Your task to perform on an android device: Open Google Image 0: 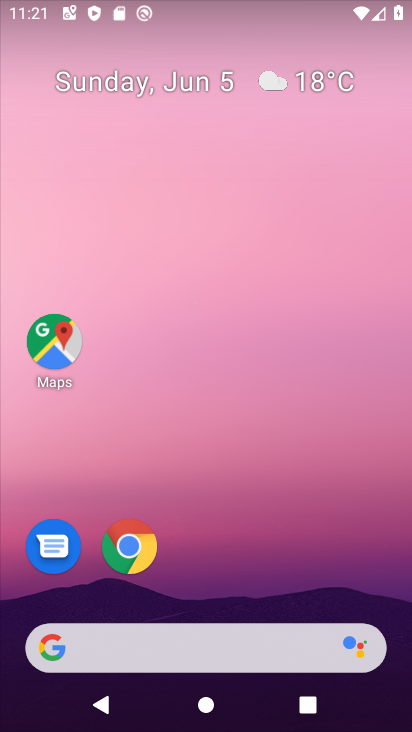
Step 0: drag from (198, 626) to (179, 312)
Your task to perform on an android device: Open Google Image 1: 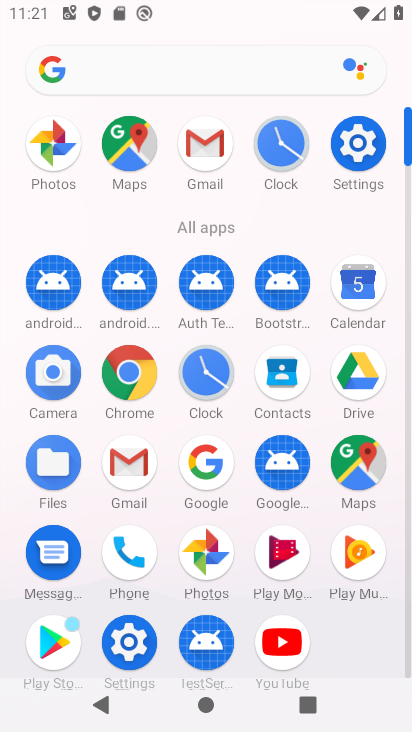
Step 1: click (212, 464)
Your task to perform on an android device: Open Google Image 2: 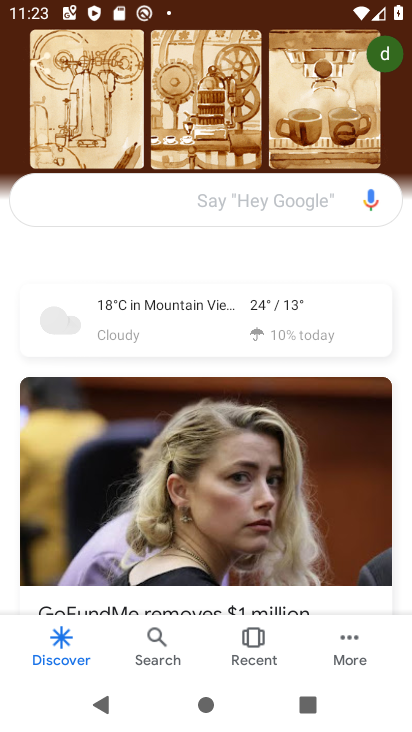
Step 2: task complete